Your task to perform on an android device: Open internet settings Image 0: 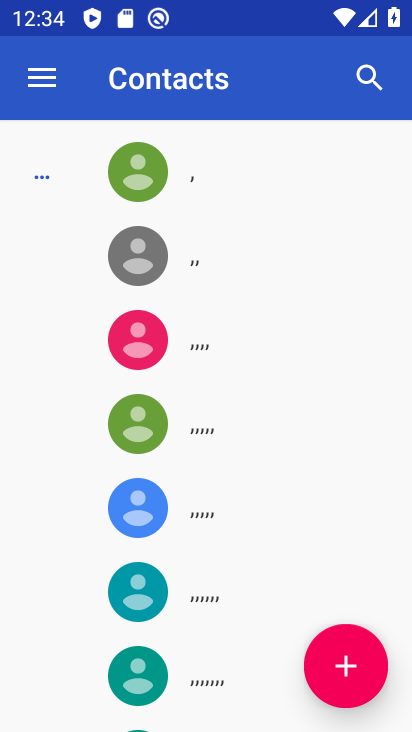
Step 0: press home button
Your task to perform on an android device: Open internet settings Image 1: 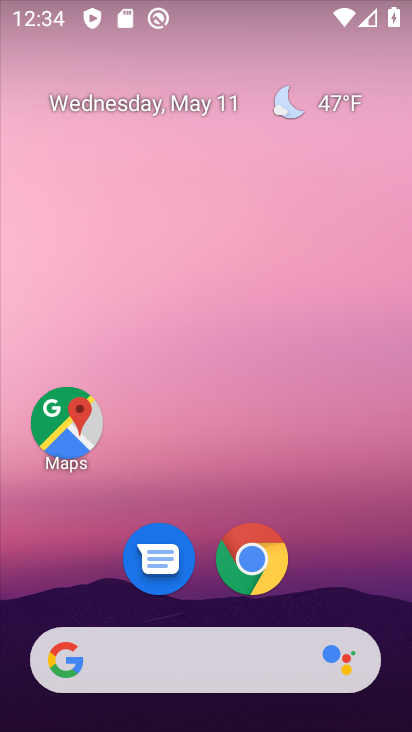
Step 1: drag from (201, 524) to (262, 161)
Your task to perform on an android device: Open internet settings Image 2: 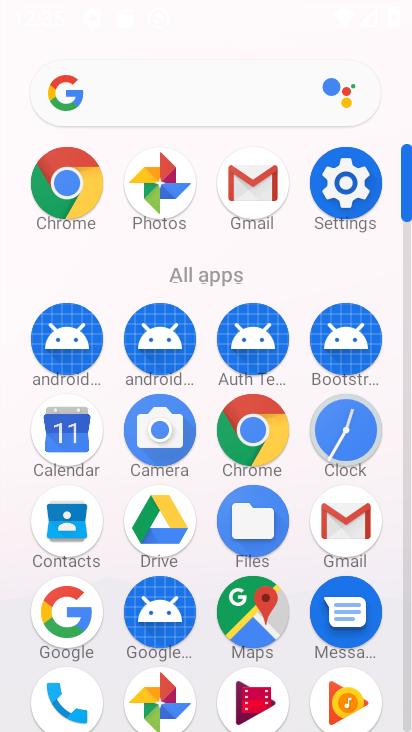
Step 2: click (351, 207)
Your task to perform on an android device: Open internet settings Image 3: 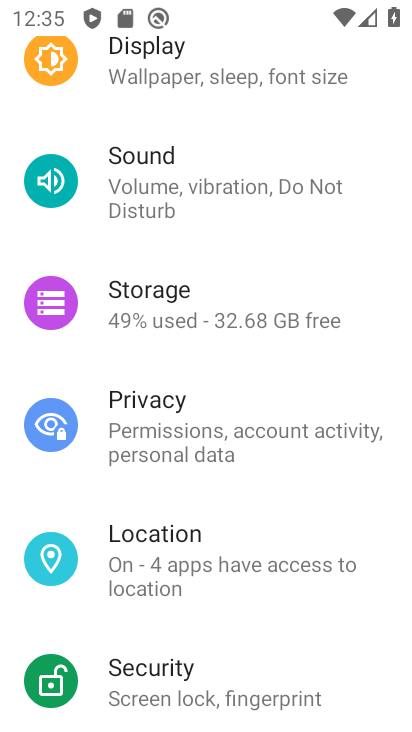
Step 3: drag from (256, 218) to (227, 467)
Your task to perform on an android device: Open internet settings Image 4: 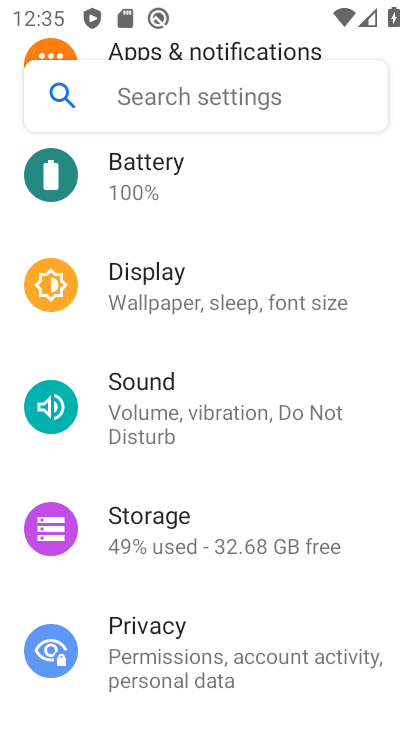
Step 4: drag from (217, 182) to (211, 389)
Your task to perform on an android device: Open internet settings Image 5: 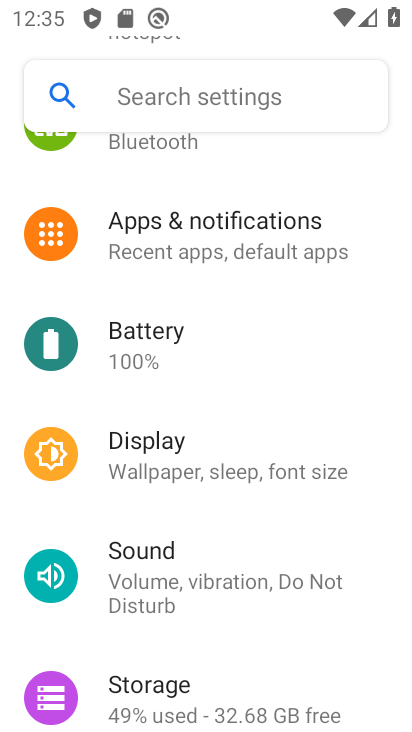
Step 5: drag from (231, 248) to (230, 485)
Your task to perform on an android device: Open internet settings Image 6: 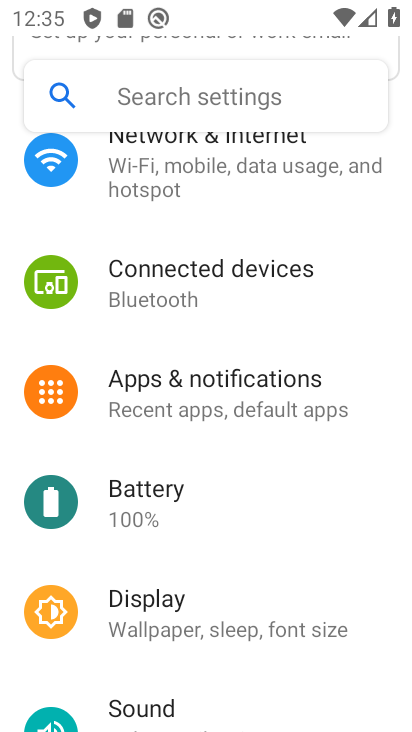
Step 6: drag from (208, 207) to (188, 437)
Your task to perform on an android device: Open internet settings Image 7: 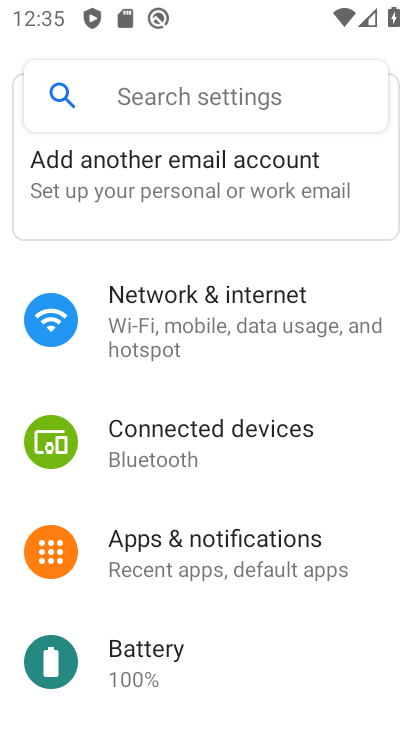
Step 7: click (224, 360)
Your task to perform on an android device: Open internet settings Image 8: 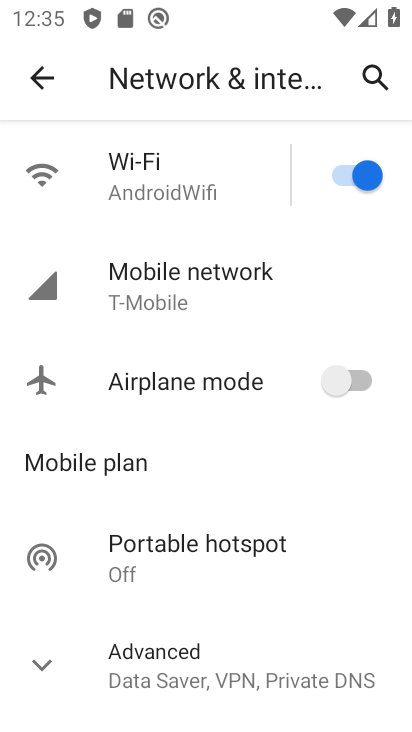
Step 8: task complete